Your task to perform on an android device: add a contact in the contacts app Image 0: 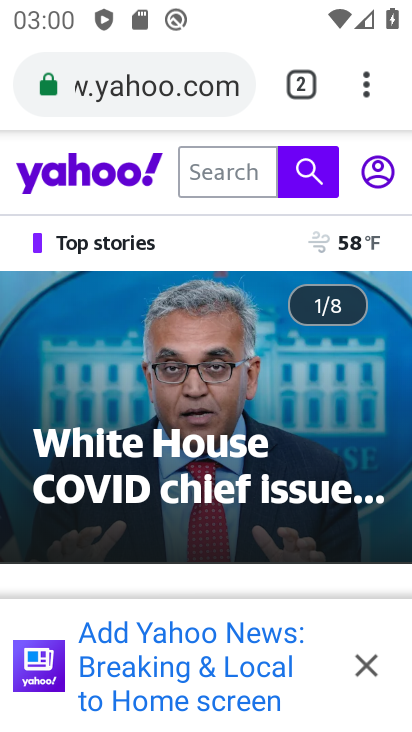
Step 0: press back button
Your task to perform on an android device: add a contact in the contacts app Image 1: 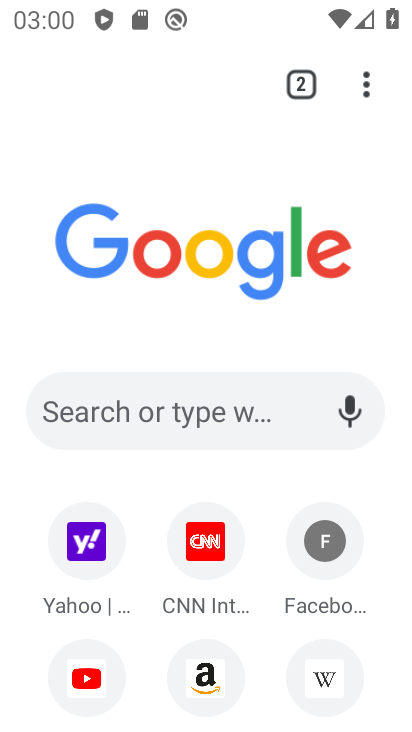
Step 1: press back button
Your task to perform on an android device: add a contact in the contacts app Image 2: 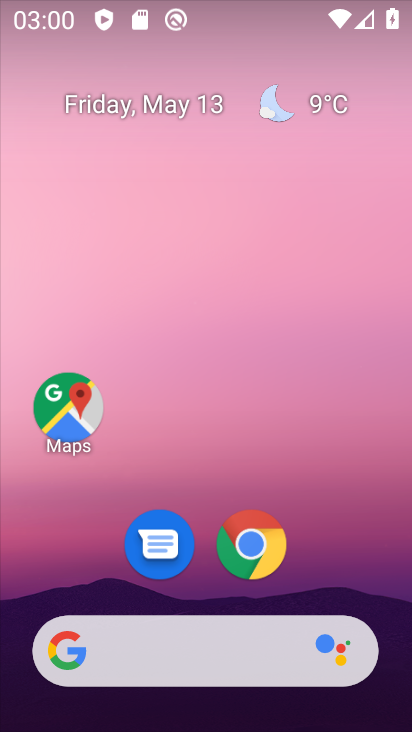
Step 2: drag from (343, 590) to (295, 35)
Your task to perform on an android device: add a contact in the contacts app Image 3: 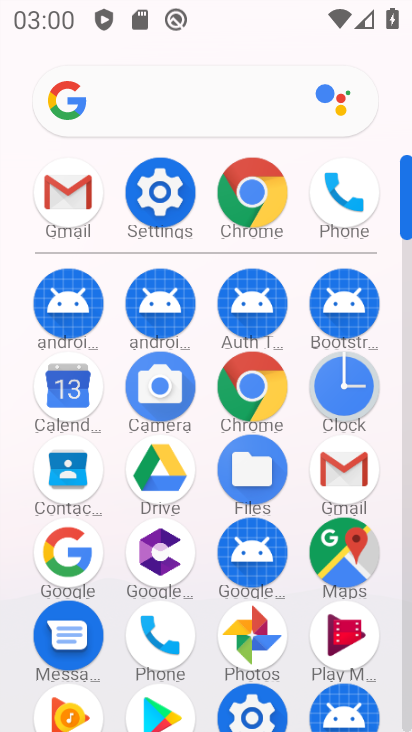
Step 3: drag from (12, 498) to (29, 203)
Your task to perform on an android device: add a contact in the contacts app Image 4: 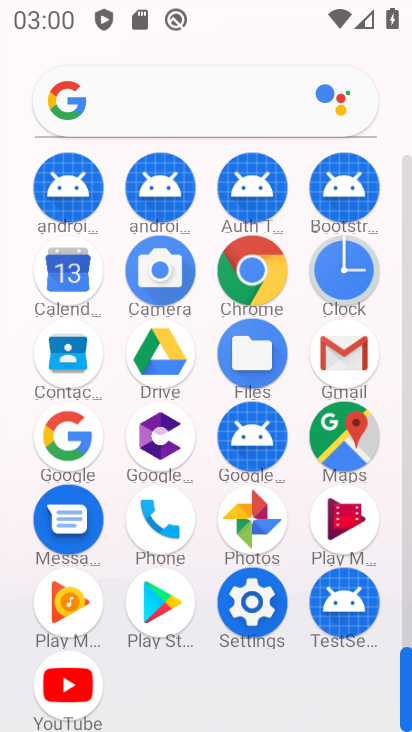
Step 4: click (63, 353)
Your task to perform on an android device: add a contact in the contacts app Image 5: 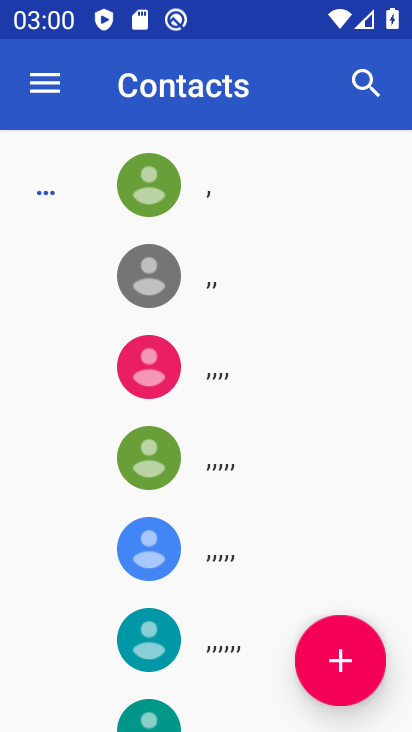
Step 5: click (354, 660)
Your task to perform on an android device: add a contact in the contacts app Image 6: 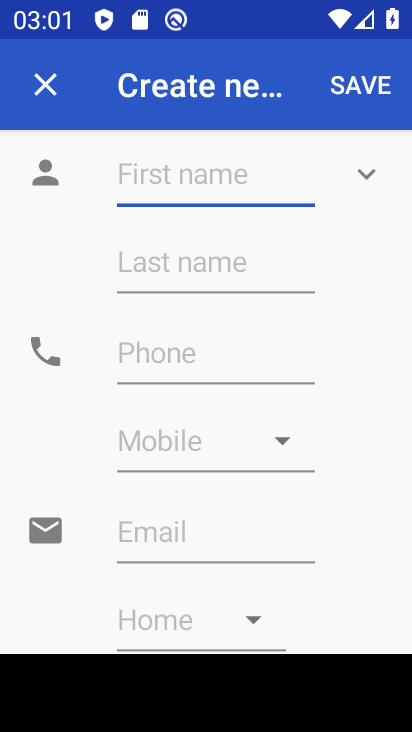
Step 6: type "SDDS"
Your task to perform on an android device: add a contact in the contacts app Image 7: 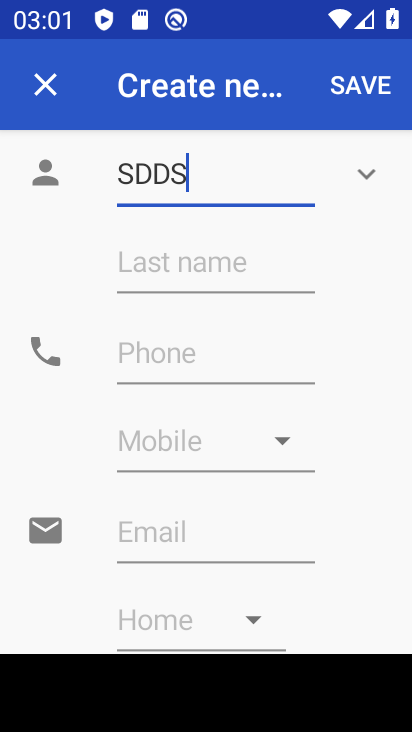
Step 7: type ""
Your task to perform on an android device: add a contact in the contacts app Image 8: 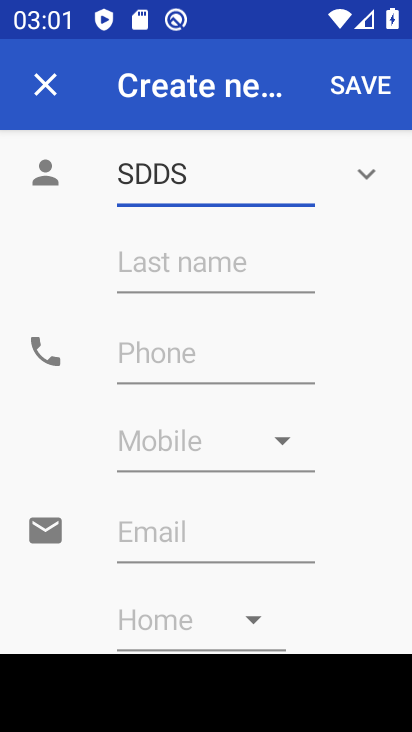
Step 8: click (183, 353)
Your task to perform on an android device: add a contact in the contacts app Image 9: 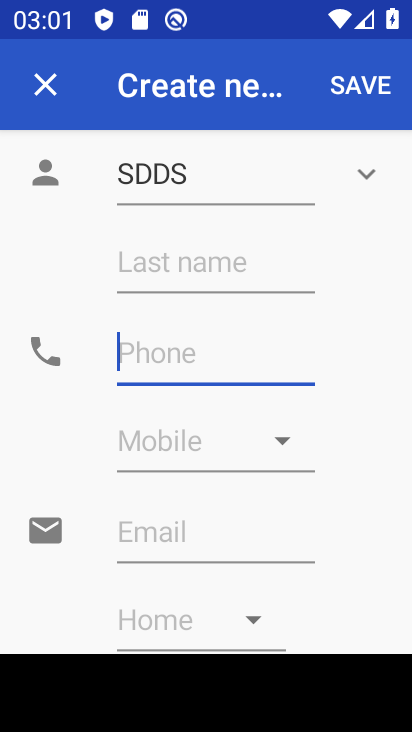
Step 9: type "2343456"
Your task to perform on an android device: add a contact in the contacts app Image 10: 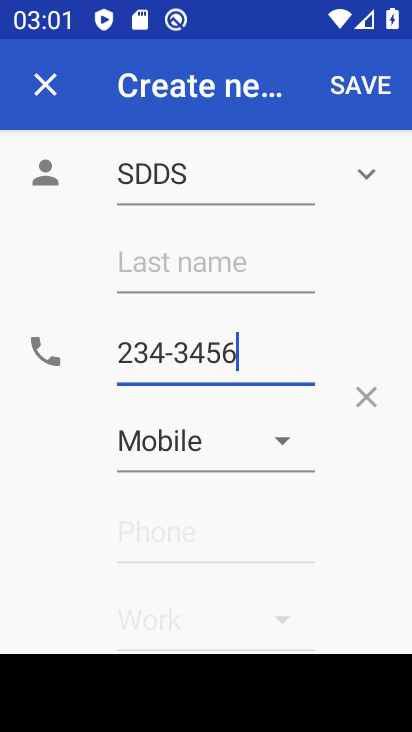
Step 10: type ""
Your task to perform on an android device: add a contact in the contacts app Image 11: 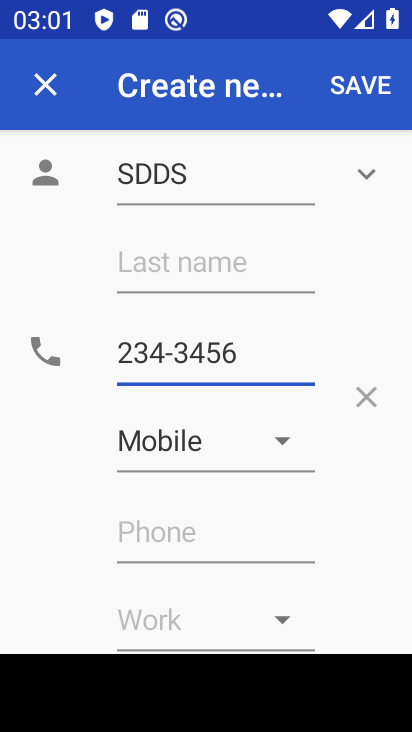
Step 11: click (366, 69)
Your task to perform on an android device: add a contact in the contacts app Image 12: 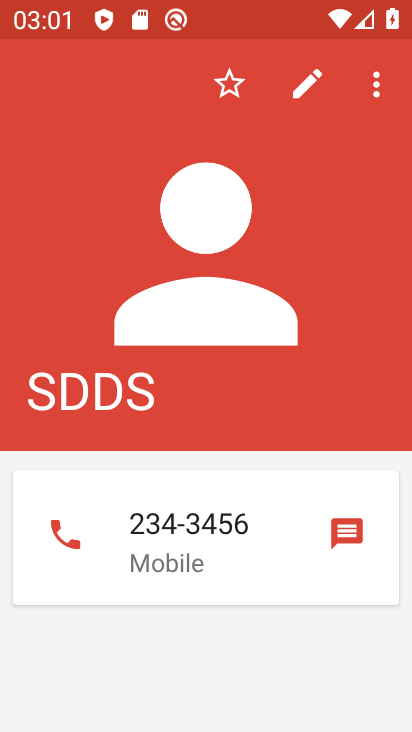
Step 12: task complete